Your task to perform on an android device: manage bookmarks in the chrome app Image 0: 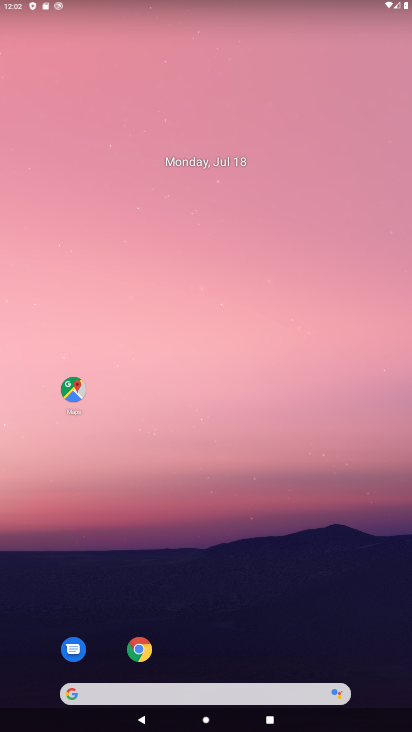
Step 0: click (149, 637)
Your task to perform on an android device: manage bookmarks in the chrome app Image 1: 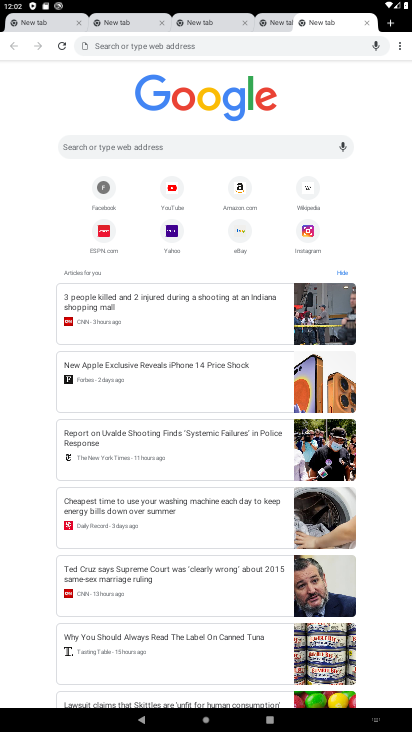
Step 1: click (395, 48)
Your task to perform on an android device: manage bookmarks in the chrome app Image 2: 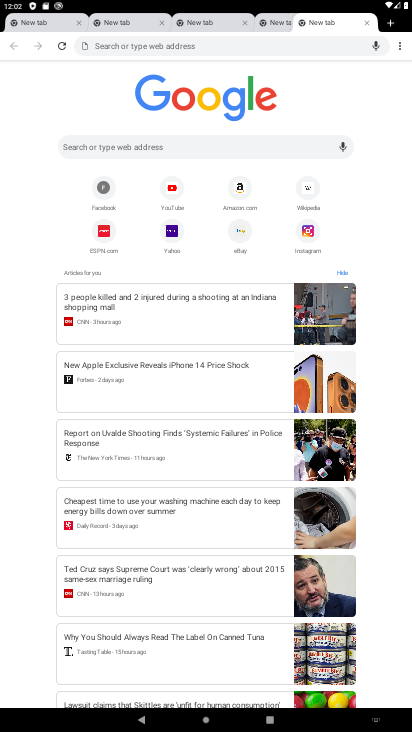
Step 2: click (401, 47)
Your task to perform on an android device: manage bookmarks in the chrome app Image 3: 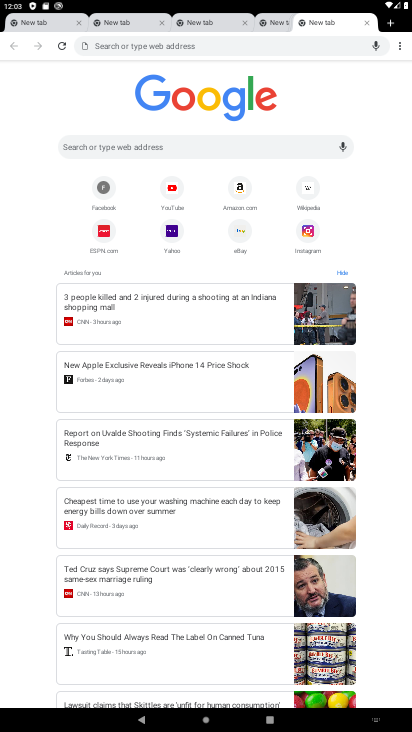
Step 3: click (403, 46)
Your task to perform on an android device: manage bookmarks in the chrome app Image 4: 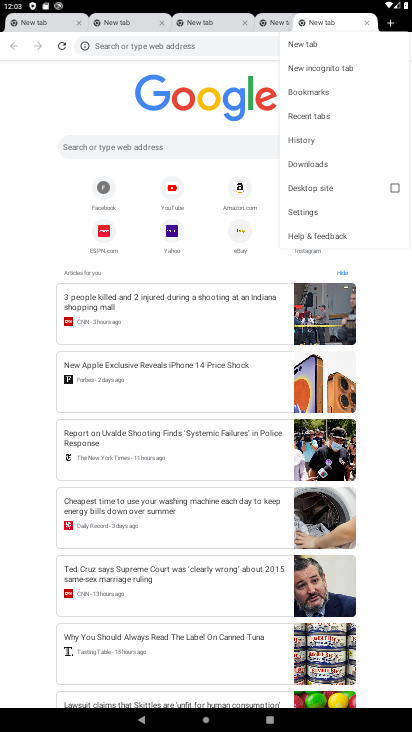
Step 4: click (306, 92)
Your task to perform on an android device: manage bookmarks in the chrome app Image 5: 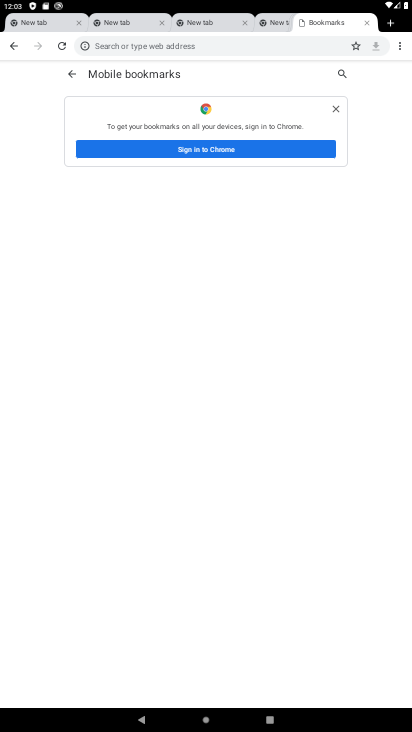
Step 5: task complete